Your task to perform on an android device: What's on my calendar today? Image 0: 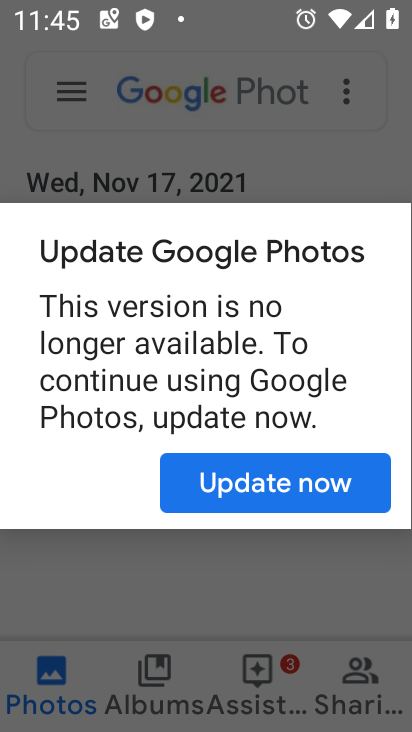
Step 0: press home button
Your task to perform on an android device: What's on my calendar today? Image 1: 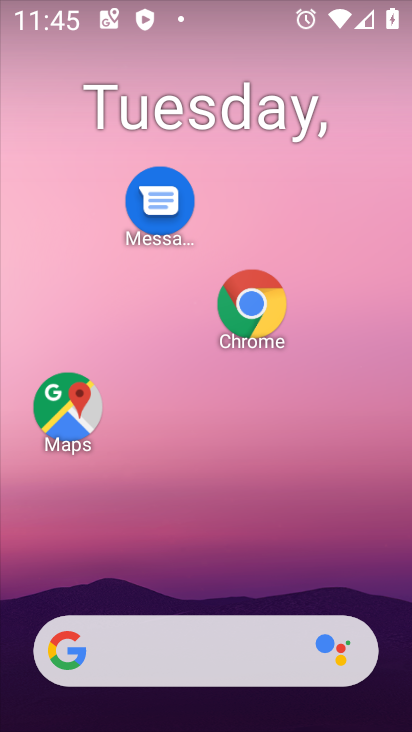
Step 1: drag from (271, 555) to (299, 259)
Your task to perform on an android device: What's on my calendar today? Image 2: 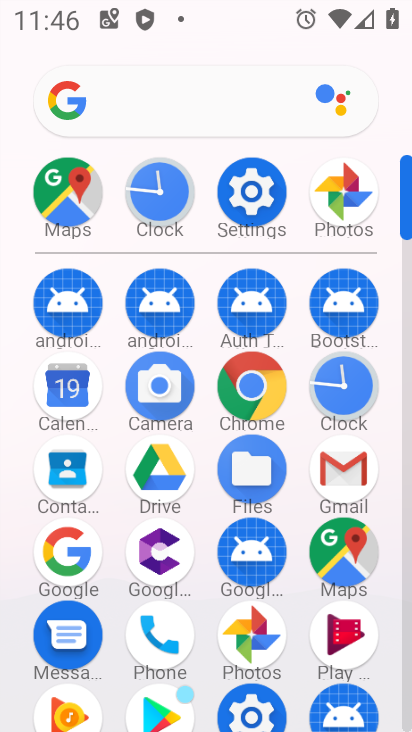
Step 2: click (67, 389)
Your task to perform on an android device: What's on my calendar today? Image 3: 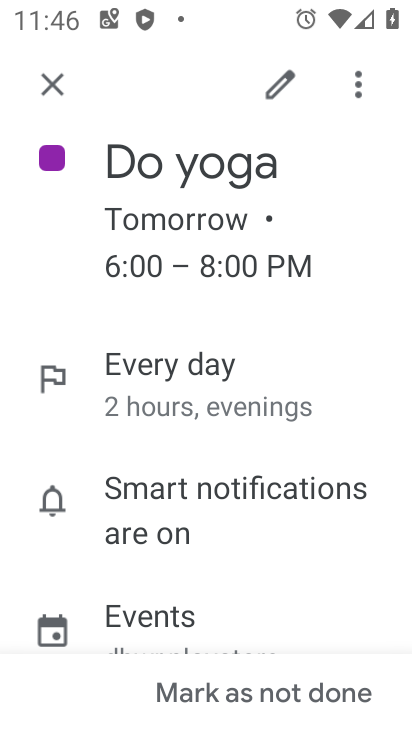
Step 3: click (55, 77)
Your task to perform on an android device: What's on my calendar today? Image 4: 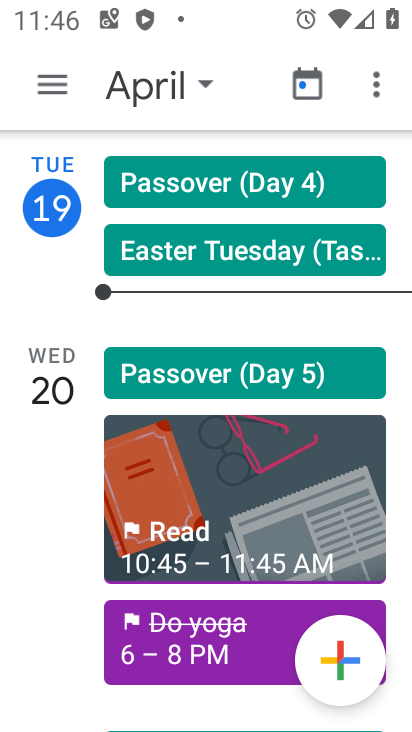
Step 4: click (55, 77)
Your task to perform on an android device: What's on my calendar today? Image 5: 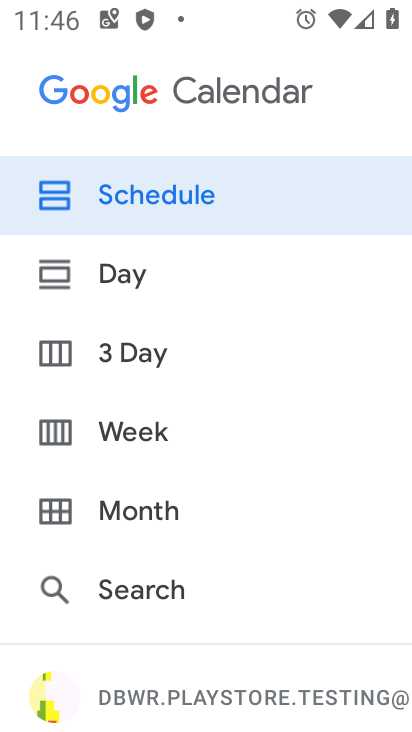
Step 5: click (155, 502)
Your task to perform on an android device: What's on my calendar today? Image 6: 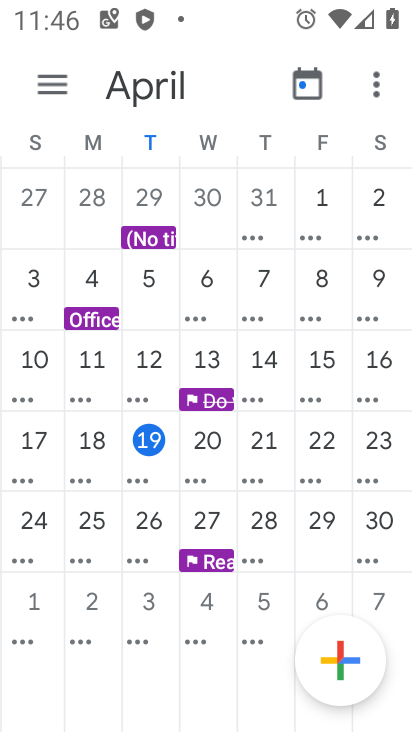
Step 6: click (155, 442)
Your task to perform on an android device: What's on my calendar today? Image 7: 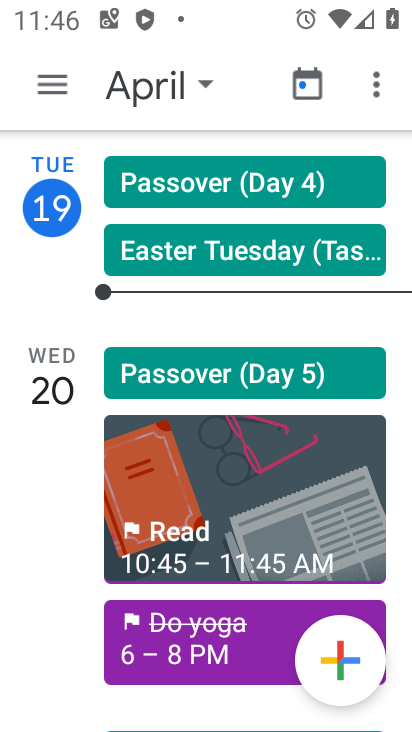
Step 7: task complete